Your task to perform on an android device: Go to wifi settings Image 0: 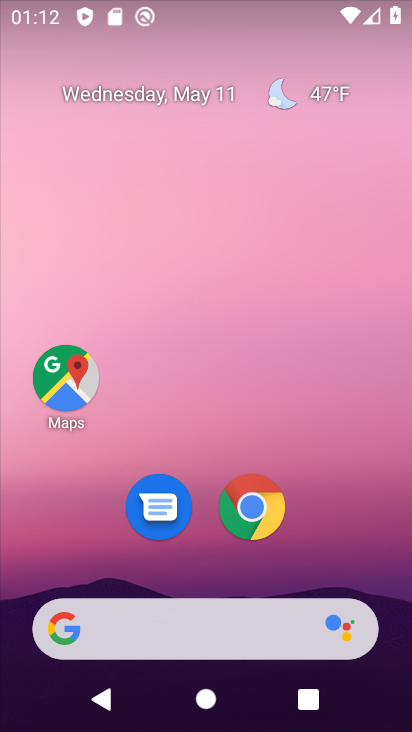
Step 0: drag from (341, 557) to (236, 17)
Your task to perform on an android device: Go to wifi settings Image 1: 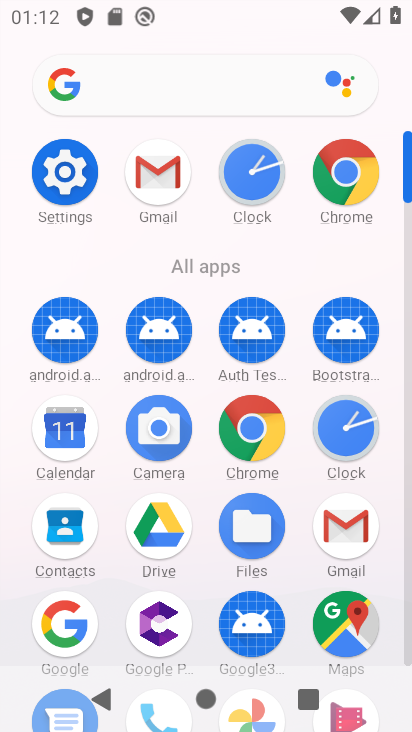
Step 1: click (70, 167)
Your task to perform on an android device: Go to wifi settings Image 2: 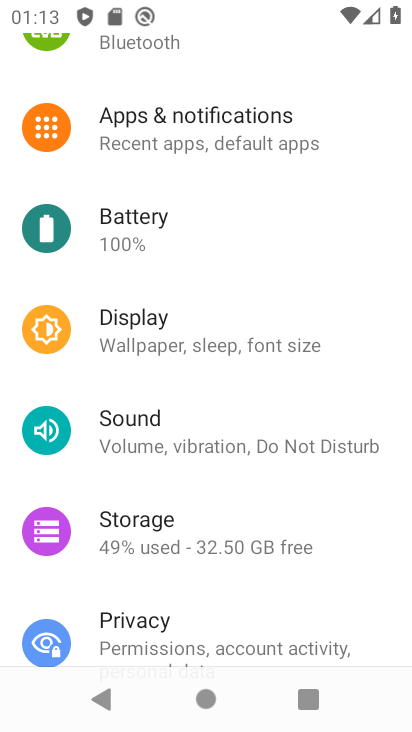
Step 2: drag from (288, 181) to (294, 443)
Your task to perform on an android device: Go to wifi settings Image 3: 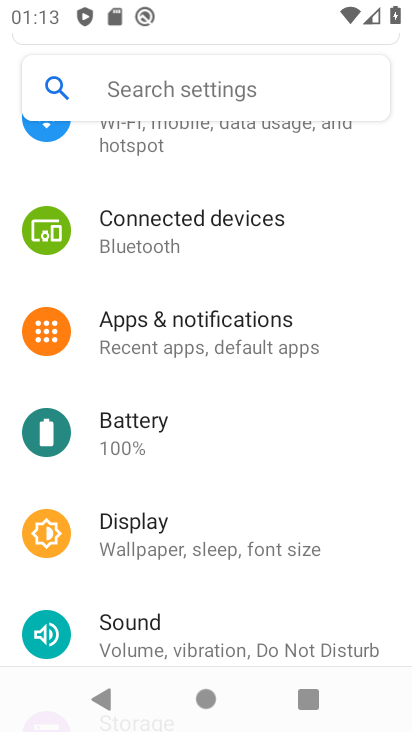
Step 3: drag from (200, 247) to (253, 623)
Your task to perform on an android device: Go to wifi settings Image 4: 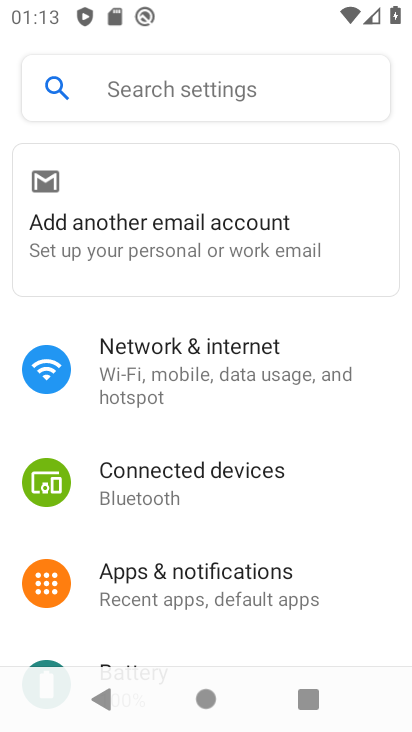
Step 4: click (199, 340)
Your task to perform on an android device: Go to wifi settings Image 5: 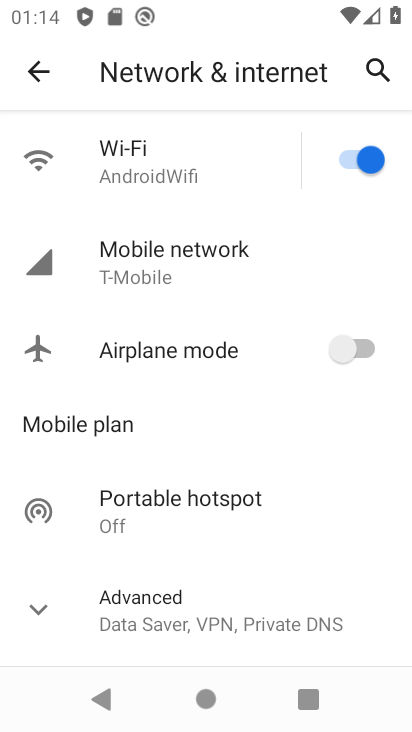
Step 5: click (139, 159)
Your task to perform on an android device: Go to wifi settings Image 6: 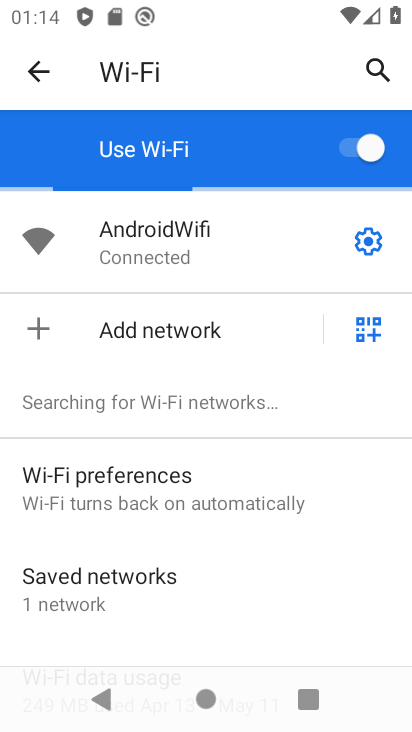
Step 6: task complete